Your task to perform on an android device: open app "Messenger Lite" (install if not already installed), go to login, and select forgot password Image 0: 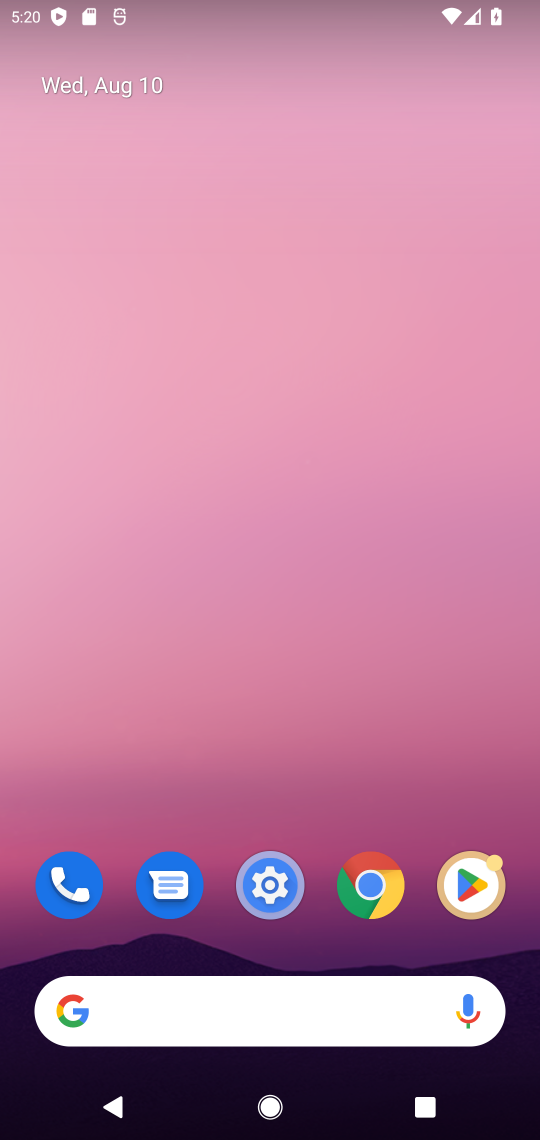
Step 0: drag from (293, 966) to (438, 94)
Your task to perform on an android device: open app "Messenger Lite" (install if not already installed), go to login, and select forgot password Image 1: 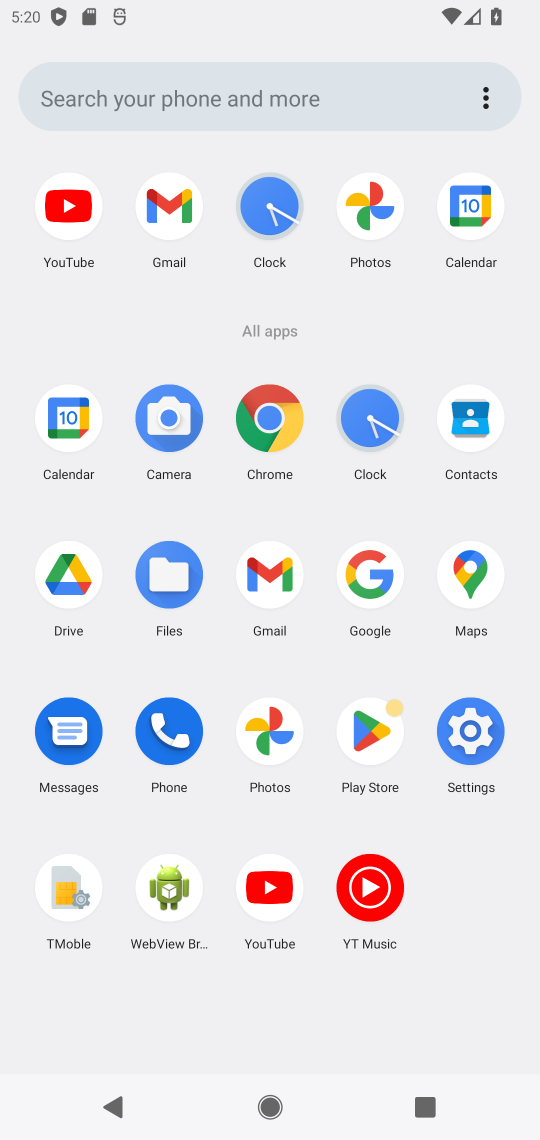
Step 1: click (383, 708)
Your task to perform on an android device: open app "Messenger Lite" (install if not already installed), go to login, and select forgot password Image 2: 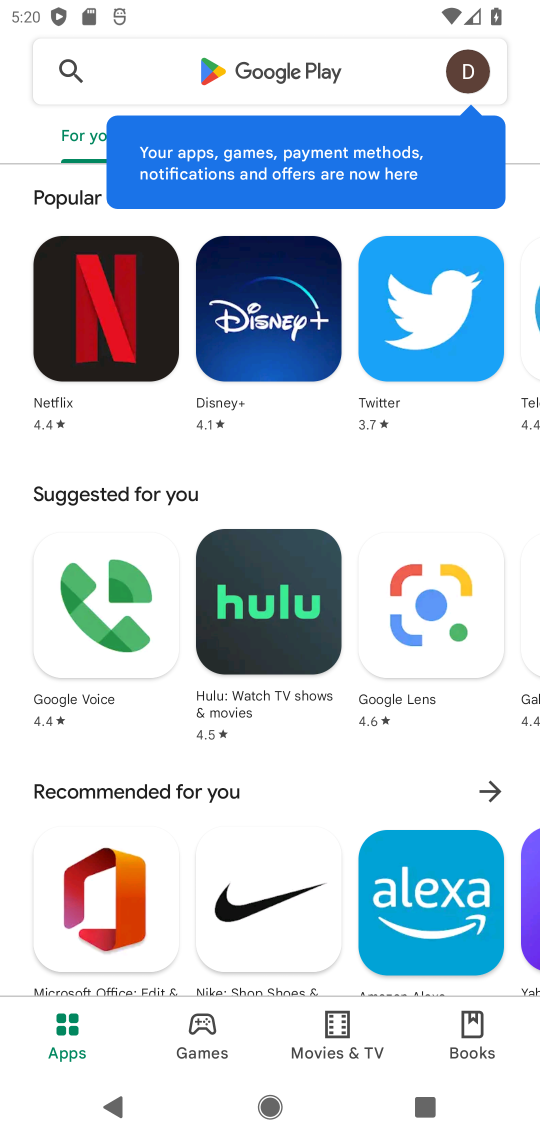
Step 2: click (268, 66)
Your task to perform on an android device: open app "Messenger Lite" (install if not already installed), go to login, and select forgot password Image 3: 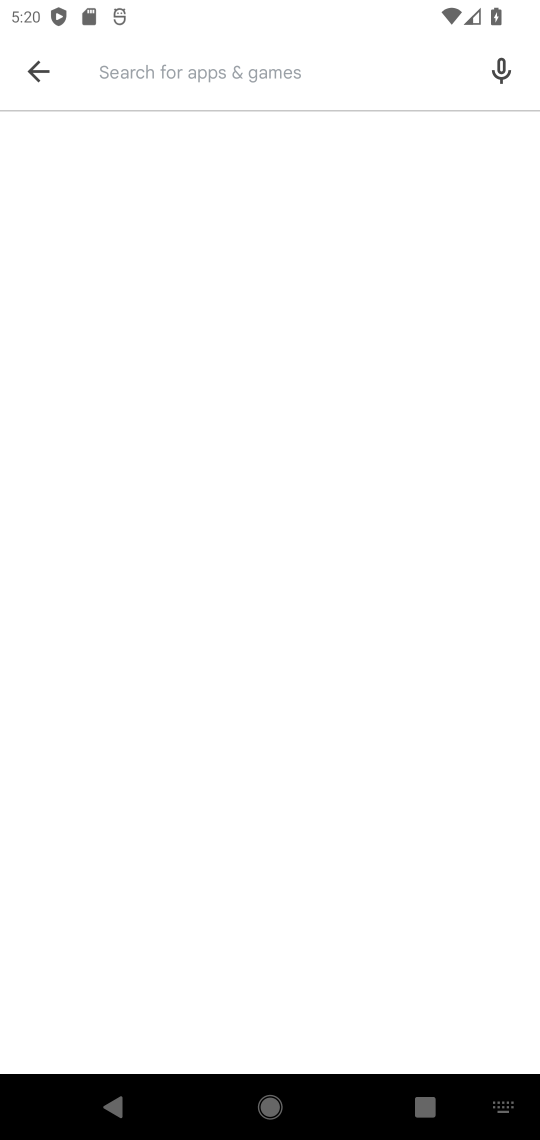
Step 3: click (174, 54)
Your task to perform on an android device: open app "Messenger Lite" (install if not already installed), go to login, and select forgot password Image 4: 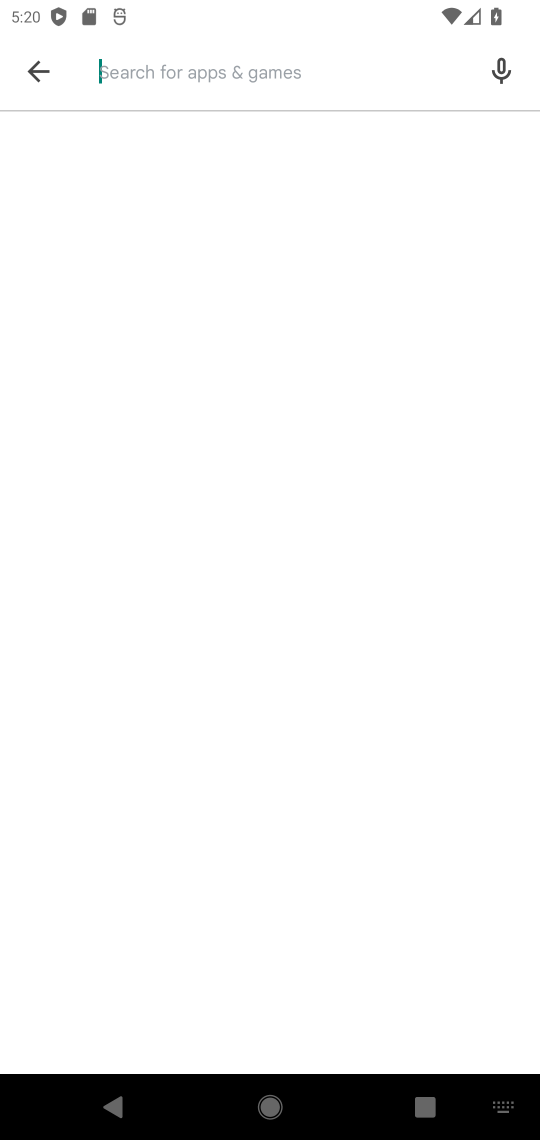
Step 4: type "Messenger Lite"
Your task to perform on an android device: open app "Messenger Lite" (install if not already installed), go to login, and select forgot password Image 5: 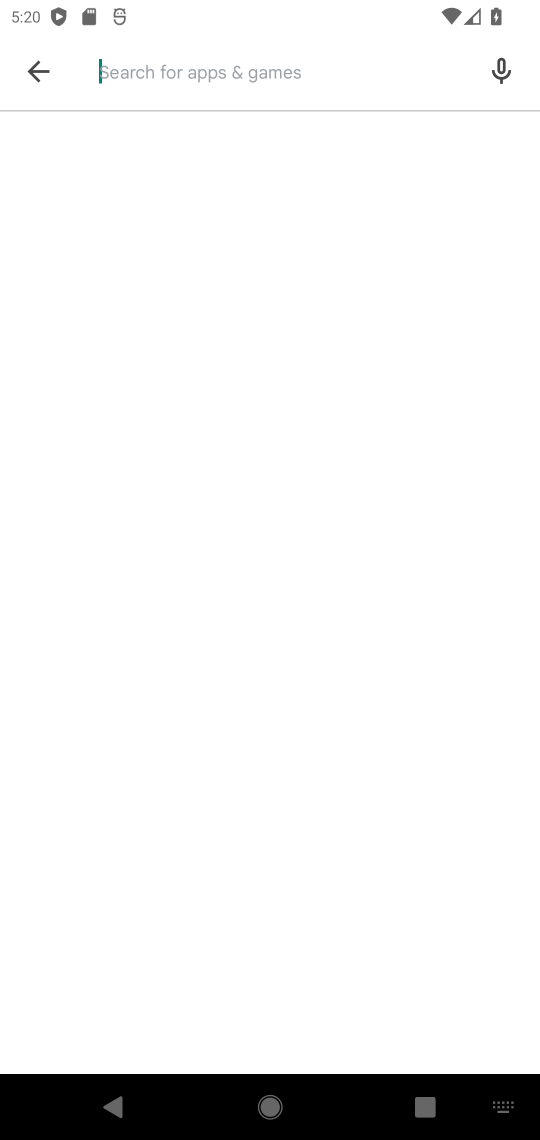
Step 5: click (437, 666)
Your task to perform on an android device: open app "Messenger Lite" (install if not already installed), go to login, and select forgot password Image 6: 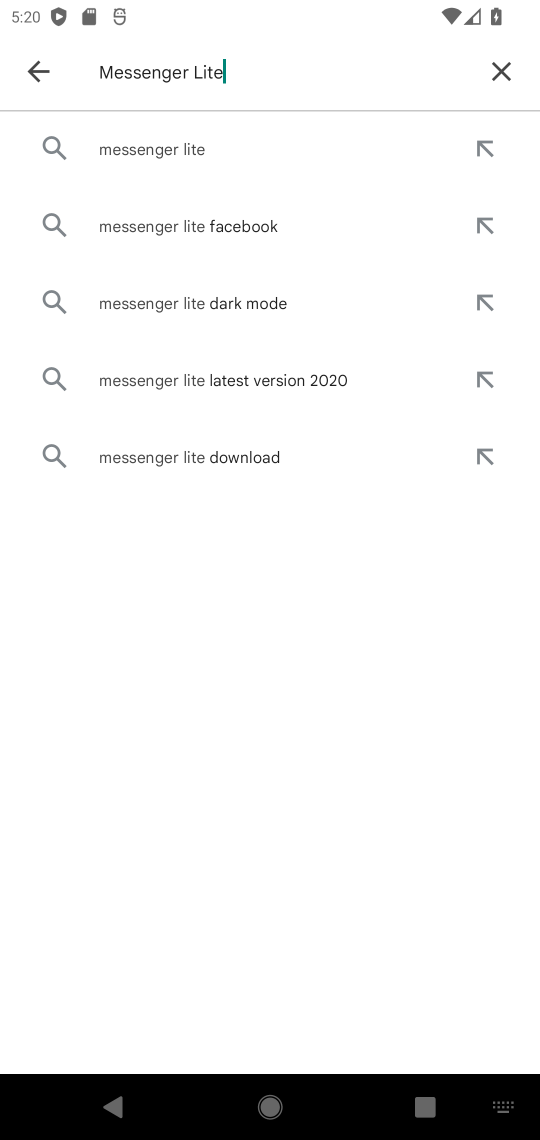
Step 6: click (142, 168)
Your task to perform on an android device: open app "Messenger Lite" (install if not already installed), go to login, and select forgot password Image 7: 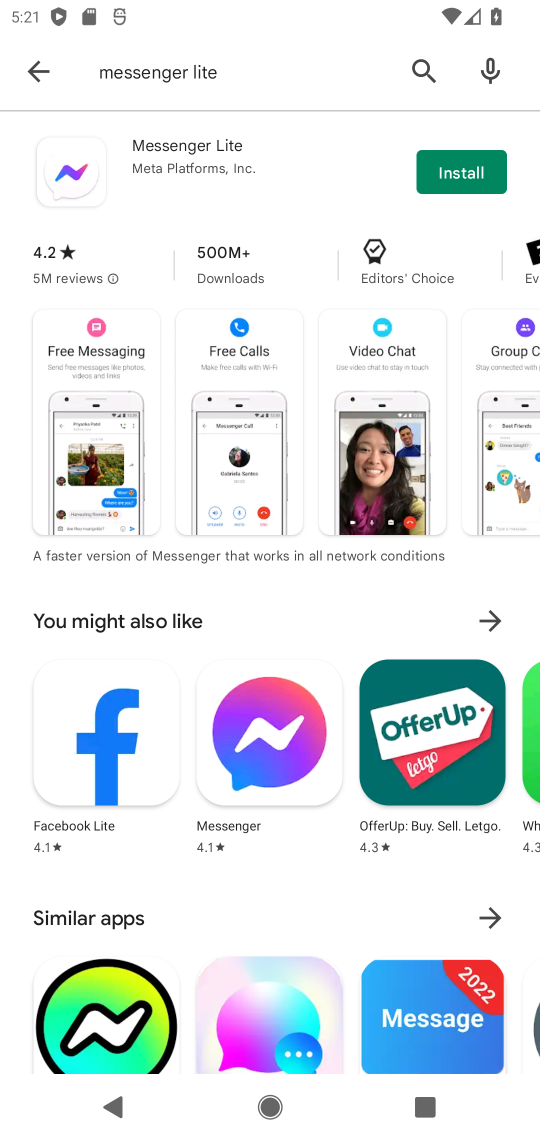
Step 7: click (464, 163)
Your task to perform on an android device: open app "Messenger Lite" (install if not already installed), go to login, and select forgot password Image 8: 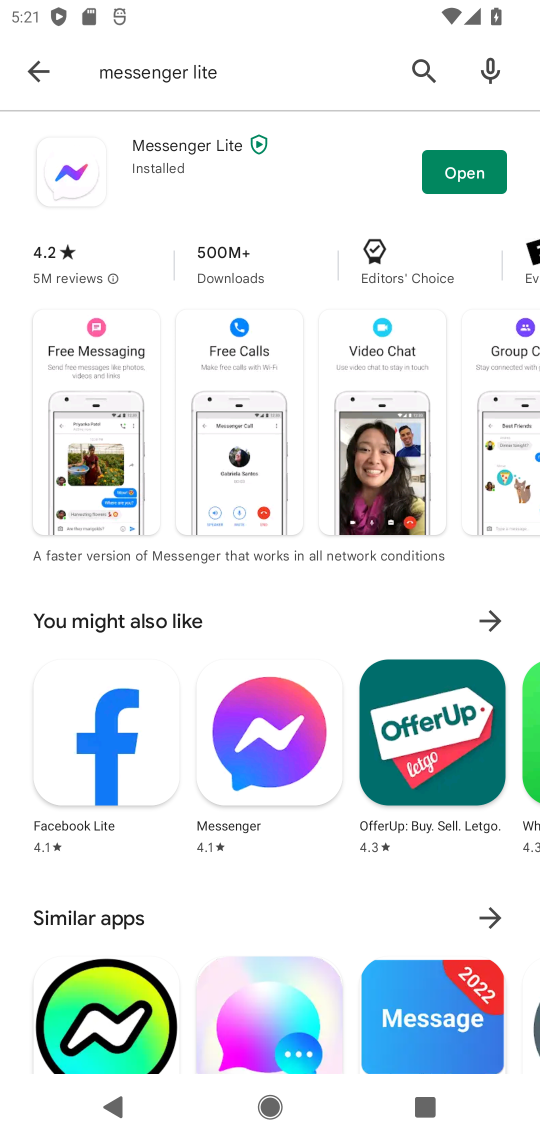
Step 8: click (464, 163)
Your task to perform on an android device: open app "Messenger Lite" (install if not already installed), go to login, and select forgot password Image 9: 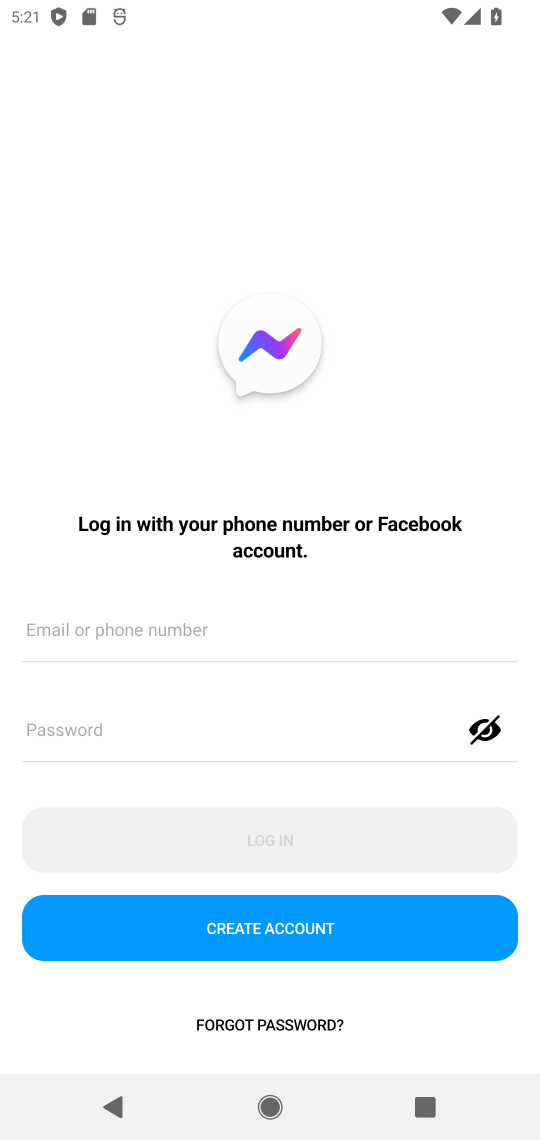
Step 9: click (255, 1016)
Your task to perform on an android device: open app "Messenger Lite" (install if not already installed), go to login, and select forgot password Image 10: 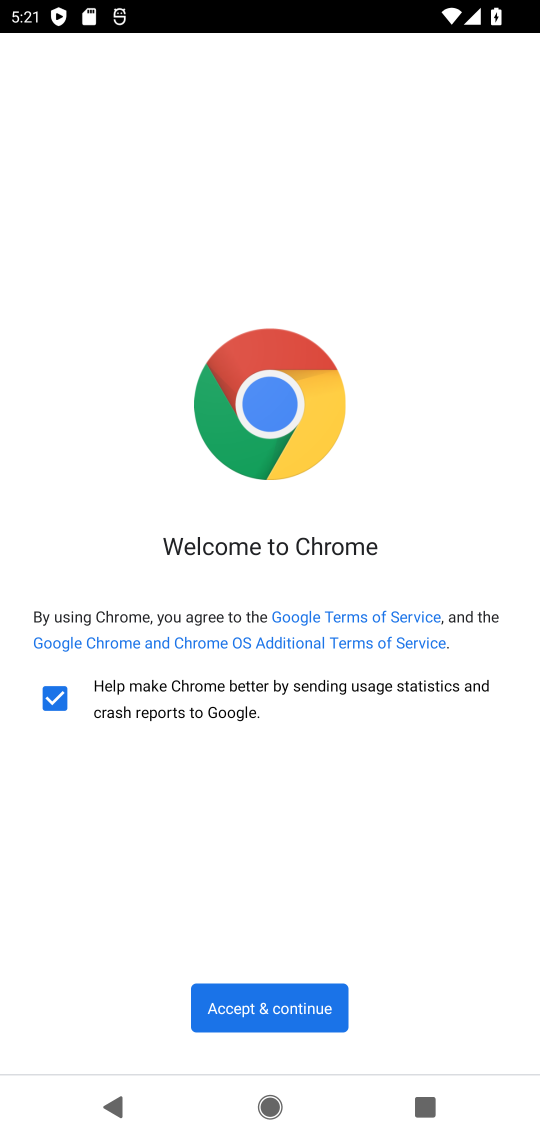
Step 10: task complete